Your task to perform on an android device: Go to Yahoo.com Image 0: 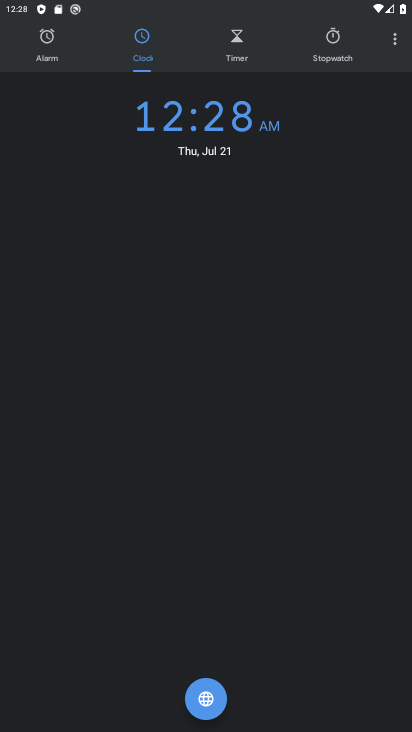
Step 0: press home button
Your task to perform on an android device: Go to Yahoo.com Image 1: 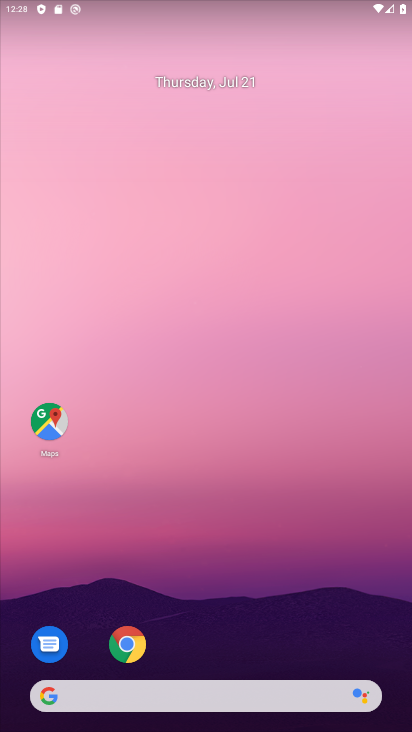
Step 1: drag from (330, 567) to (355, 64)
Your task to perform on an android device: Go to Yahoo.com Image 2: 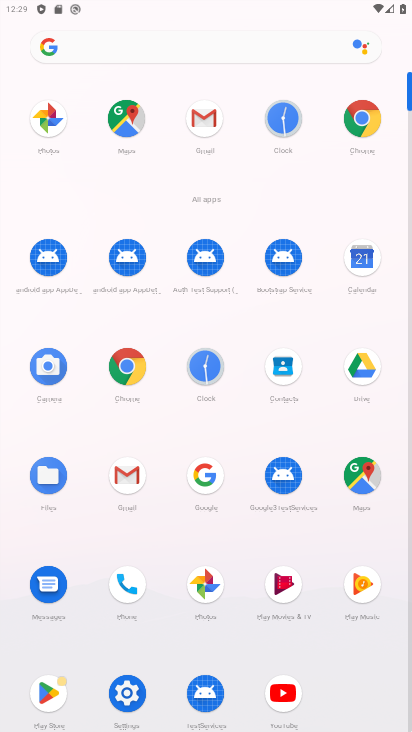
Step 2: click (128, 365)
Your task to perform on an android device: Go to Yahoo.com Image 3: 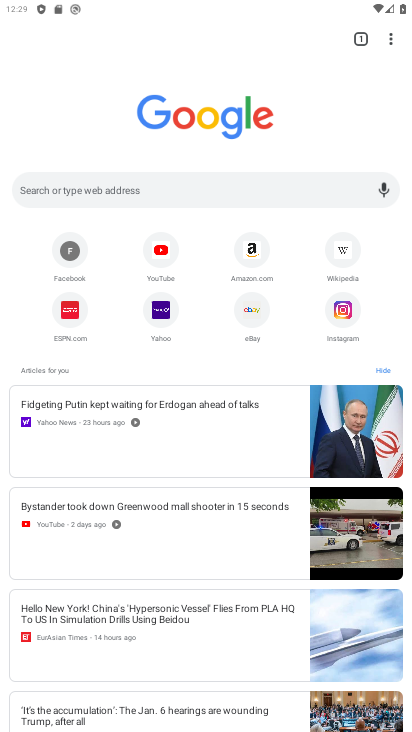
Step 3: click (203, 189)
Your task to perform on an android device: Go to Yahoo.com Image 4: 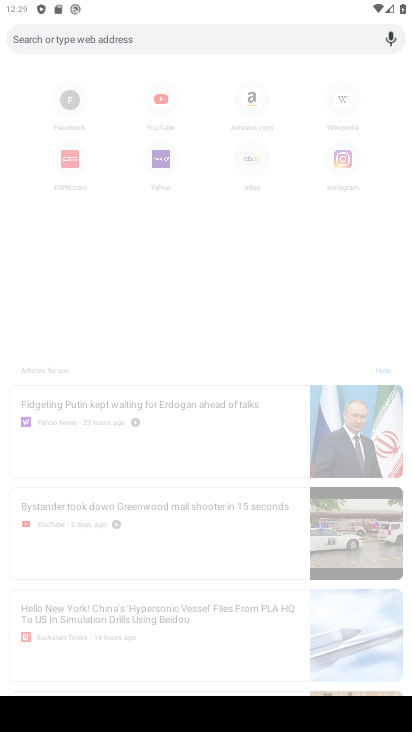
Step 4: type "yahoo.com"
Your task to perform on an android device: Go to Yahoo.com Image 5: 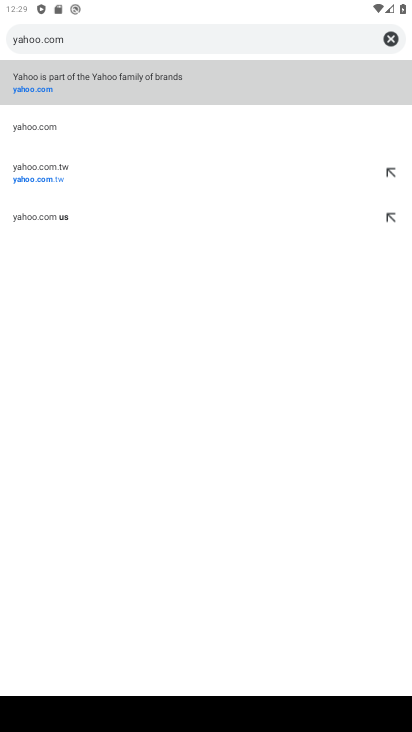
Step 5: click (208, 83)
Your task to perform on an android device: Go to Yahoo.com Image 6: 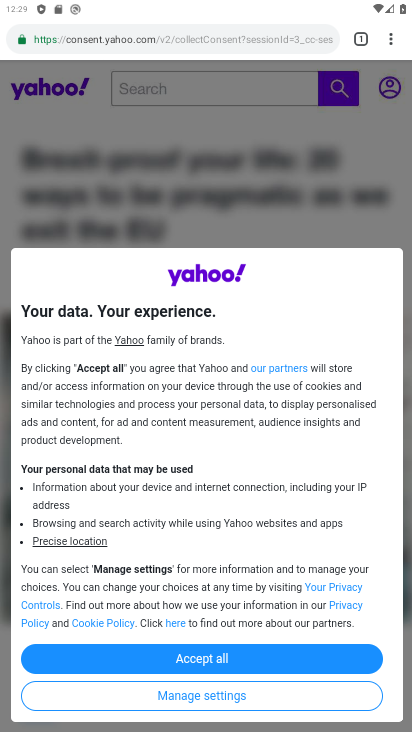
Step 6: task complete